Your task to perform on an android device: Find coffee shops on Maps Image 0: 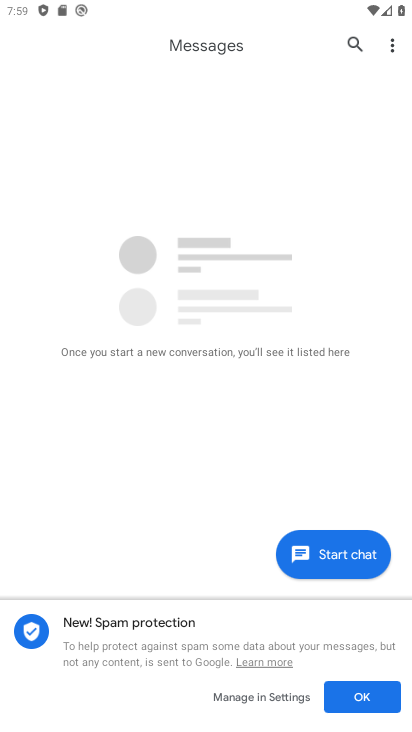
Step 0: press home button
Your task to perform on an android device: Find coffee shops on Maps Image 1: 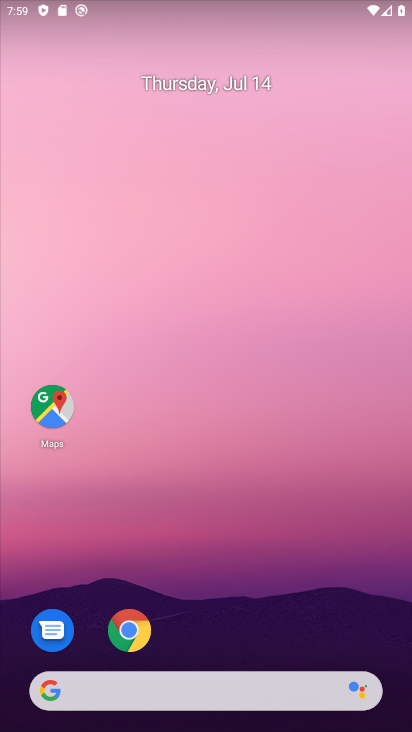
Step 1: click (224, 646)
Your task to perform on an android device: Find coffee shops on Maps Image 2: 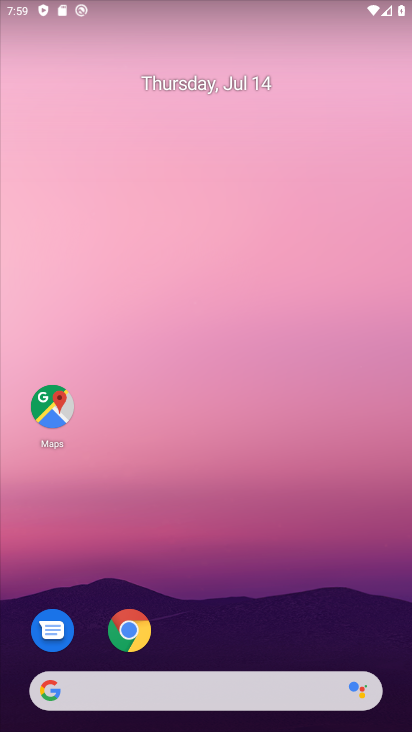
Step 2: click (44, 408)
Your task to perform on an android device: Find coffee shops on Maps Image 3: 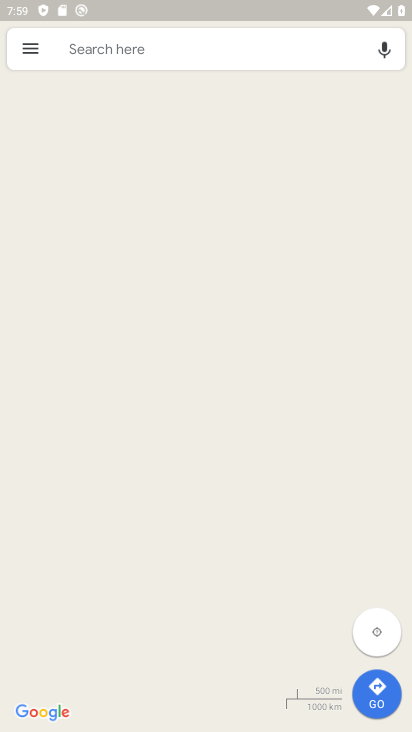
Step 3: click (173, 58)
Your task to perform on an android device: Find coffee shops on Maps Image 4: 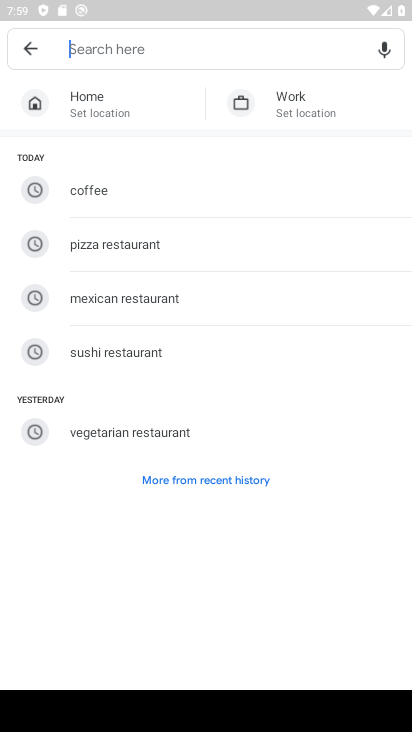
Step 4: type "cofffee shops"
Your task to perform on an android device: Find coffee shops on Maps Image 5: 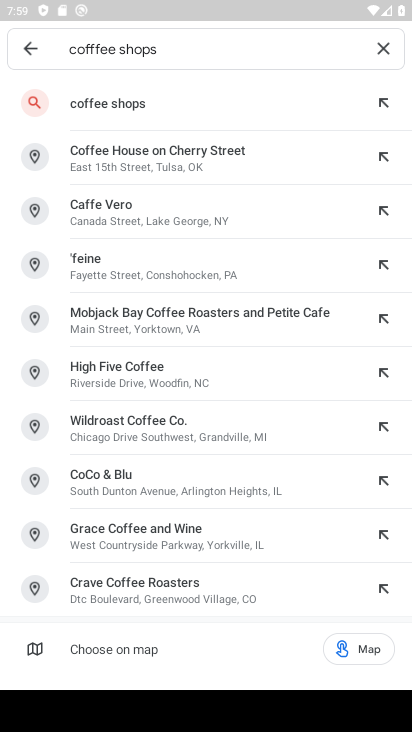
Step 5: click (183, 94)
Your task to perform on an android device: Find coffee shops on Maps Image 6: 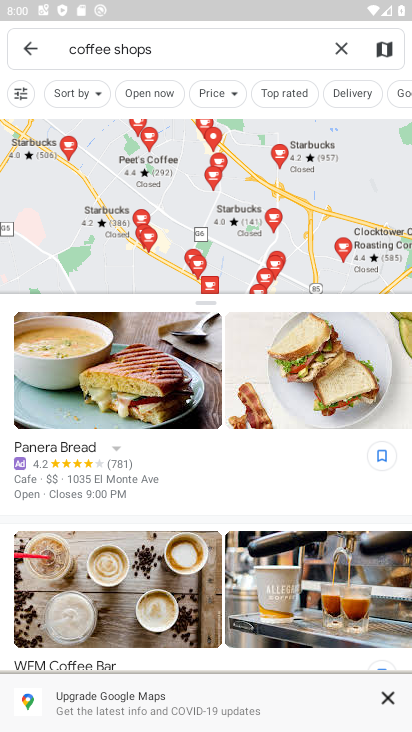
Step 6: task complete